Your task to perform on an android device: Search for pizza restaurants on Maps Image 0: 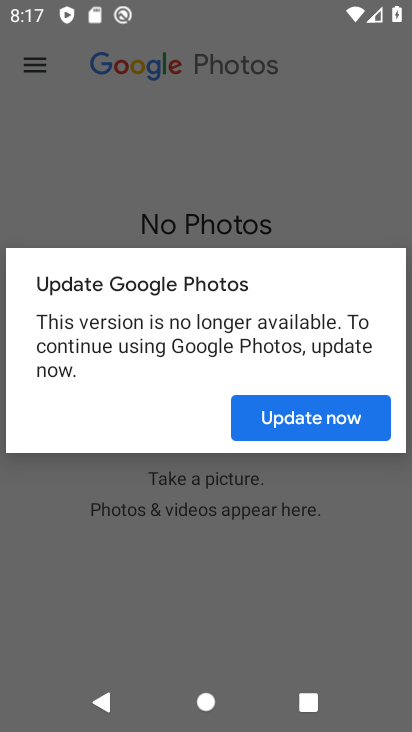
Step 0: press back button
Your task to perform on an android device: Search for pizza restaurants on Maps Image 1: 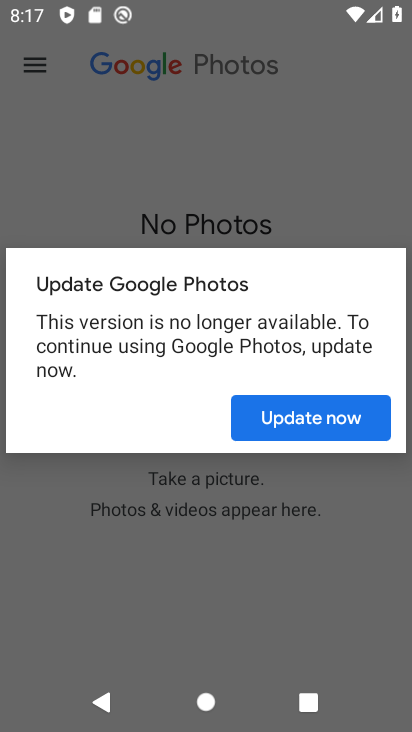
Step 1: press home button
Your task to perform on an android device: Search for pizza restaurants on Maps Image 2: 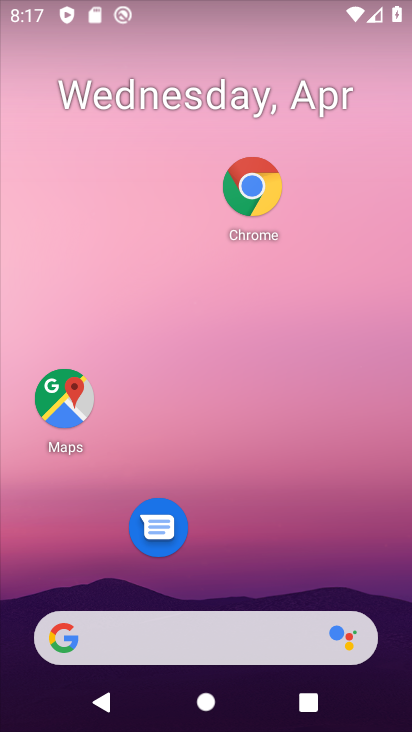
Step 2: drag from (215, 588) to (297, 147)
Your task to perform on an android device: Search for pizza restaurants on Maps Image 3: 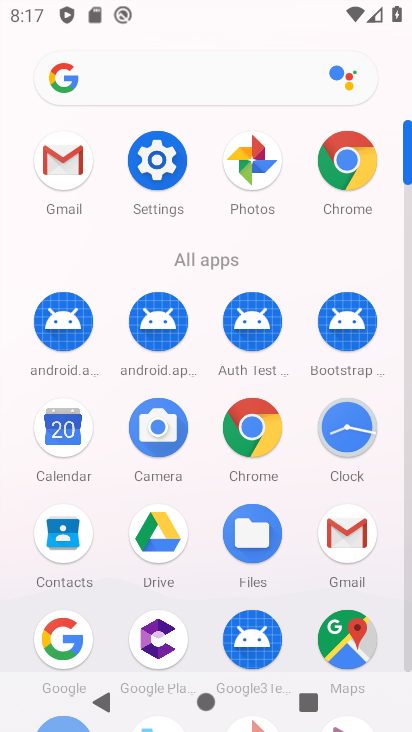
Step 3: click (334, 635)
Your task to perform on an android device: Search for pizza restaurants on Maps Image 4: 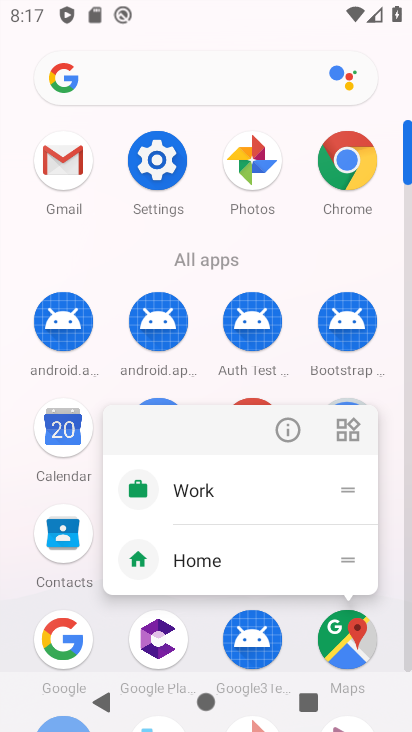
Step 4: click (336, 632)
Your task to perform on an android device: Search for pizza restaurants on Maps Image 5: 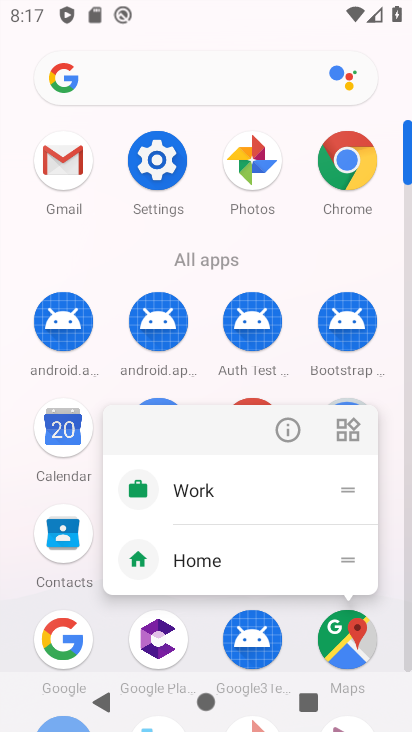
Step 5: click (336, 632)
Your task to perform on an android device: Search for pizza restaurants on Maps Image 6: 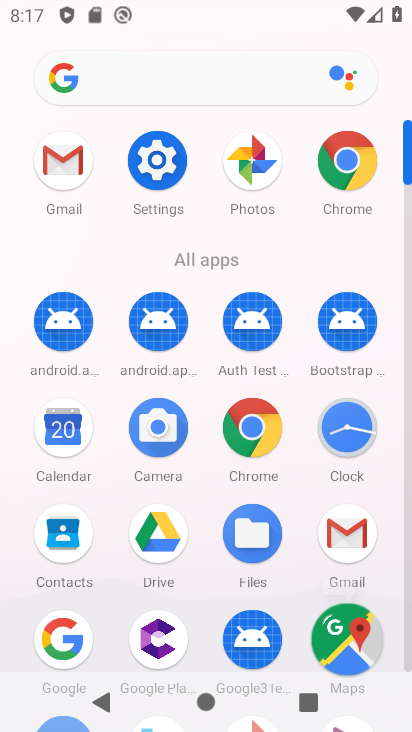
Step 6: click (340, 637)
Your task to perform on an android device: Search for pizza restaurants on Maps Image 7: 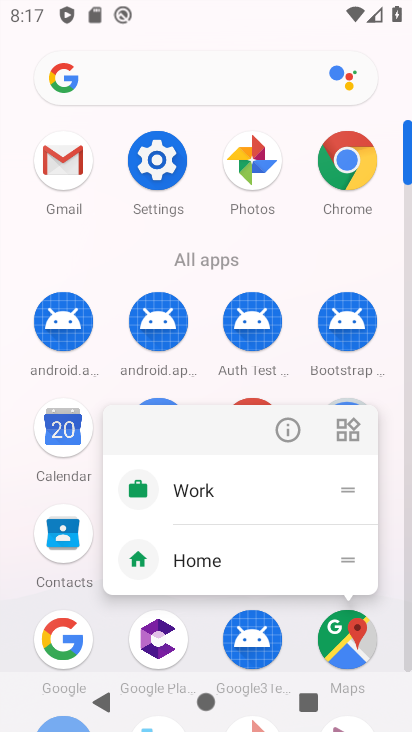
Step 7: click (340, 637)
Your task to perform on an android device: Search for pizza restaurants on Maps Image 8: 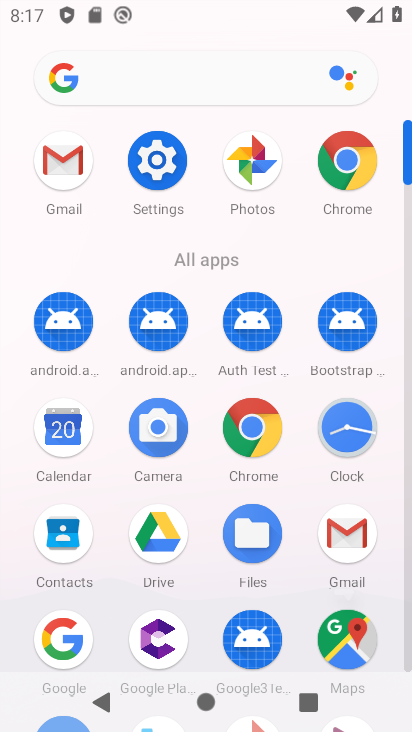
Step 8: click (340, 637)
Your task to perform on an android device: Search for pizza restaurants on Maps Image 9: 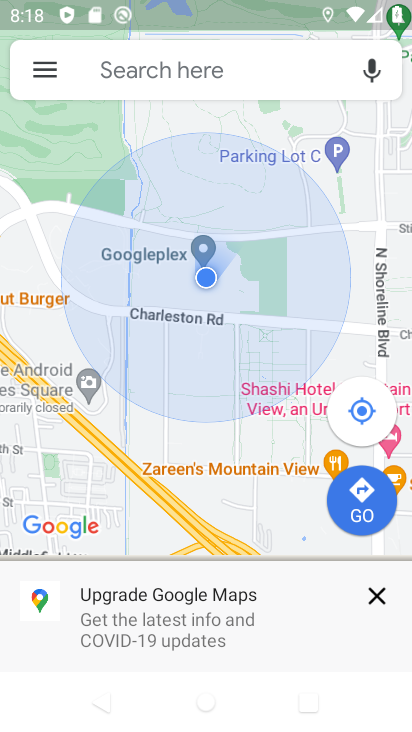
Step 9: click (226, 59)
Your task to perform on an android device: Search for pizza restaurants on Maps Image 10: 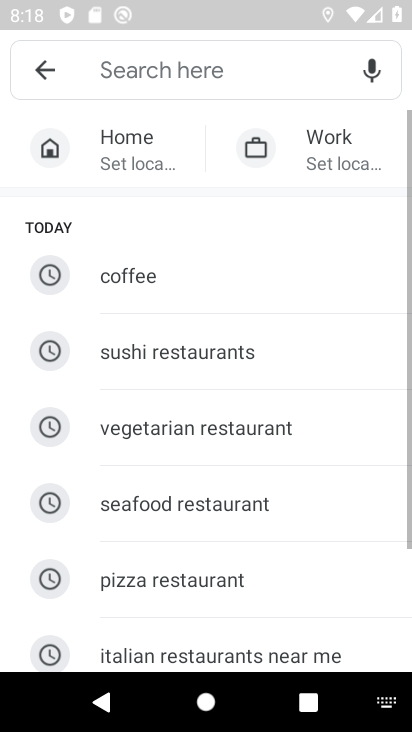
Step 10: type "pizza restaurants "
Your task to perform on an android device: Search for pizza restaurants on Maps Image 11: 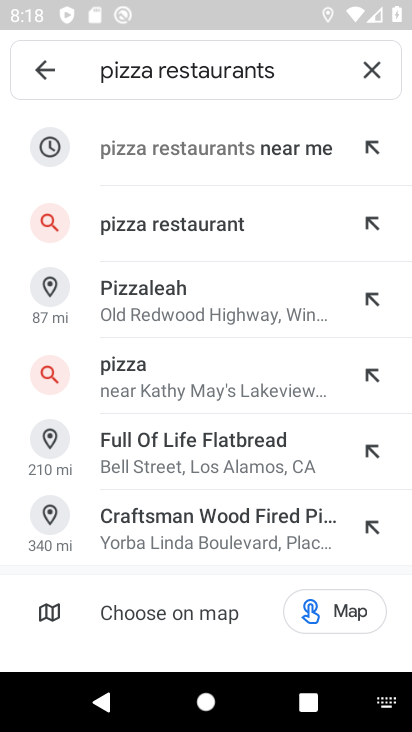
Step 11: click (277, 157)
Your task to perform on an android device: Search for pizza restaurants on Maps Image 12: 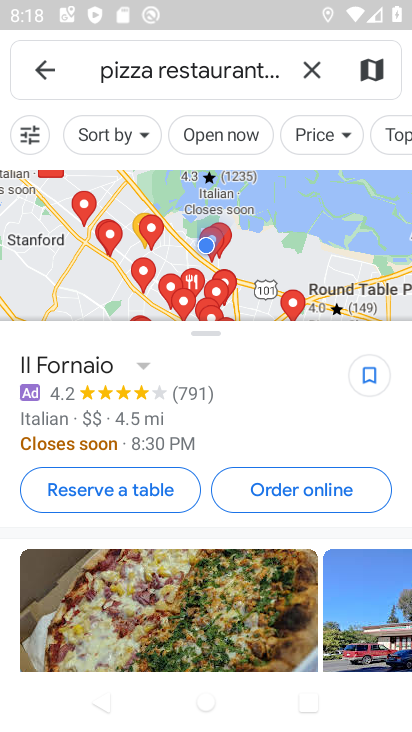
Step 12: task complete